Your task to perform on an android device: set the stopwatch Image 0: 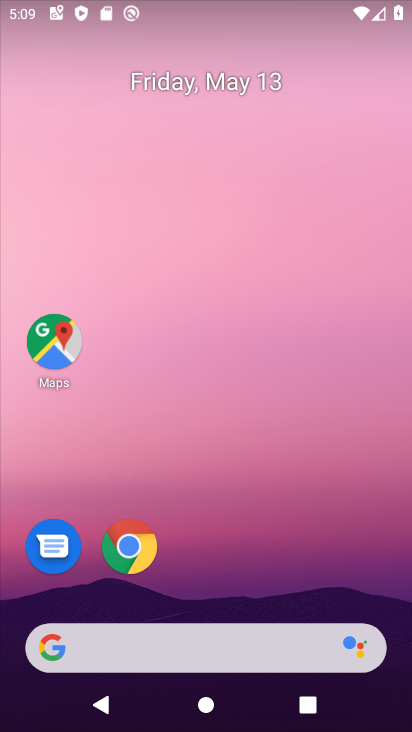
Step 0: drag from (174, 598) to (277, 128)
Your task to perform on an android device: set the stopwatch Image 1: 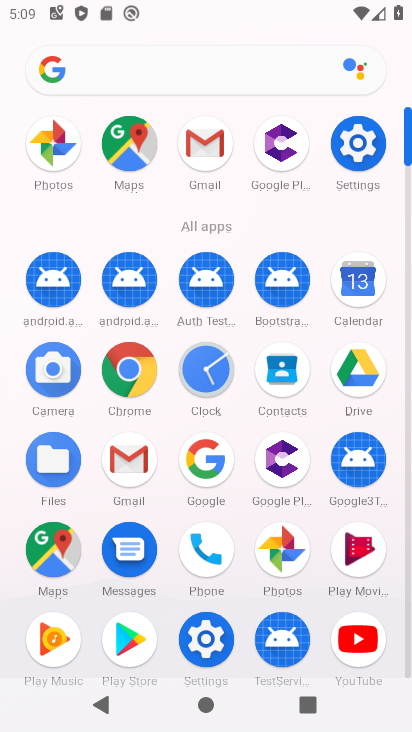
Step 1: click (203, 382)
Your task to perform on an android device: set the stopwatch Image 2: 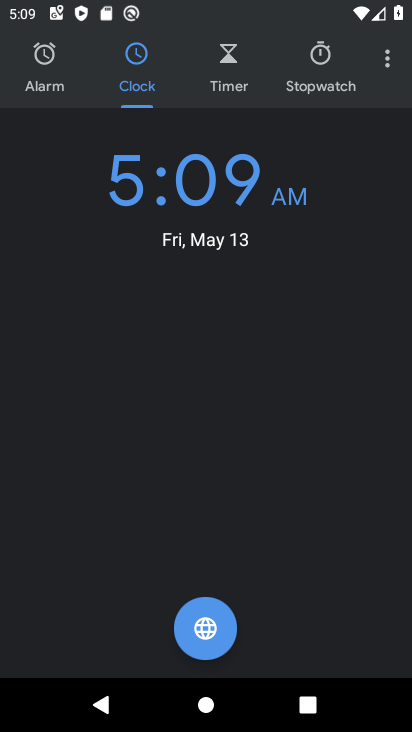
Step 2: click (308, 56)
Your task to perform on an android device: set the stopwatch Image 3: 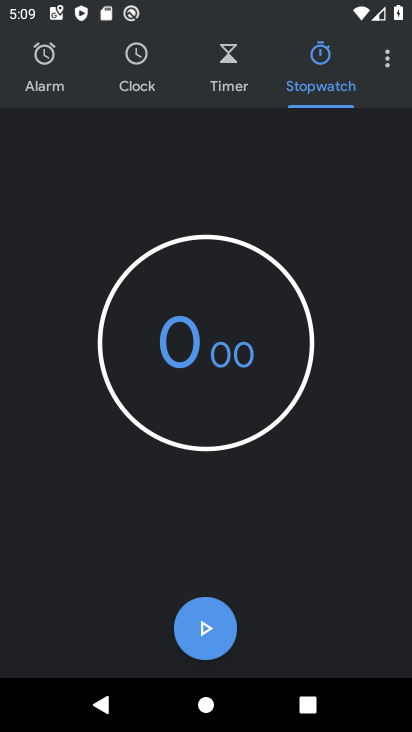
Step 3: click (216, 618)
Your task to perform on an android device: set the stopwatch Image 4: 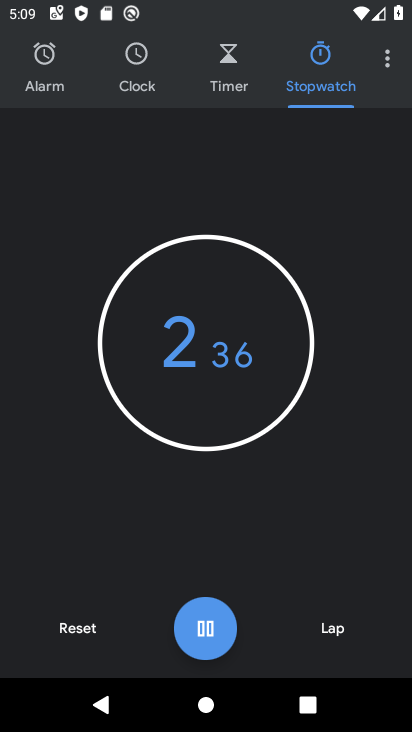
Step 4: task complete